Your task to perform on an android device: Go to accessibility settings Image 0: 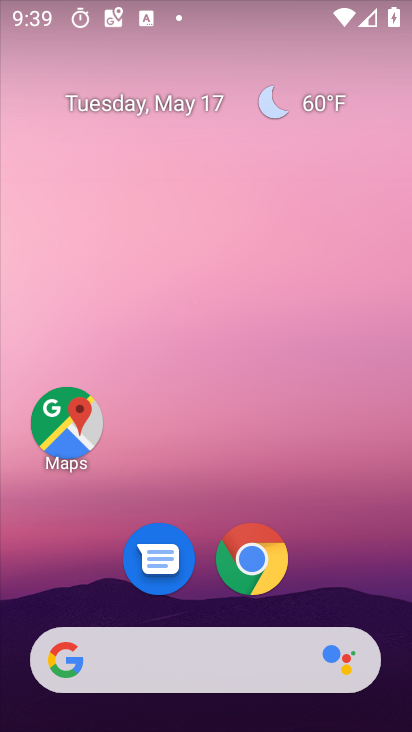
Step 0: drag from (199, 651) to (270, 121)
Your task to perform on an android device: Go to accessibility settings Image 1: 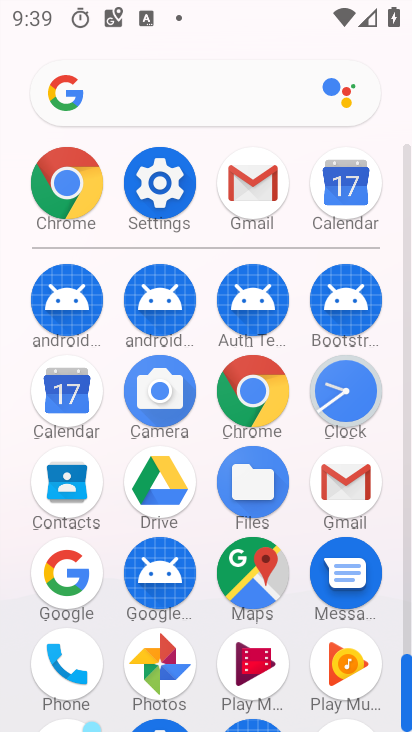
Step 1: click (149, 200)
Your task to perform on an android device: Go to accessibility settings Image 2: 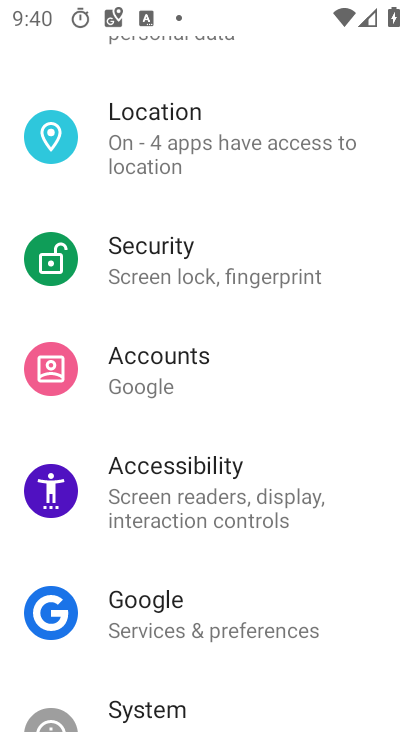
Step 2: drag from (219, 571) to (273, 191)
Your task to perform on an android device: Go to accessibility settings Image 3: 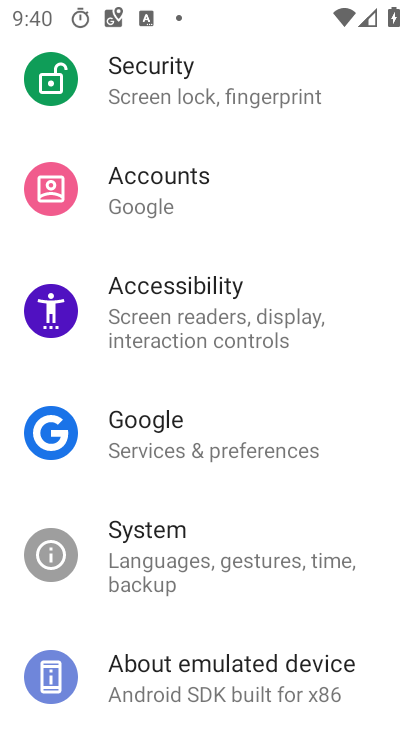
Step 3: drag from (197, 564) to (252, 233)
Your task to perform on an android device: Go to accessibility settings Image 4: 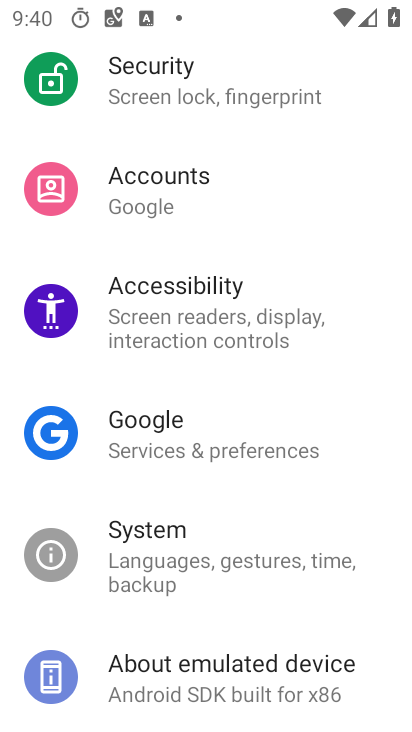
Step 4: click (240, 325)
Your task to perform on an android device: Go to accessibility settings Image 5: 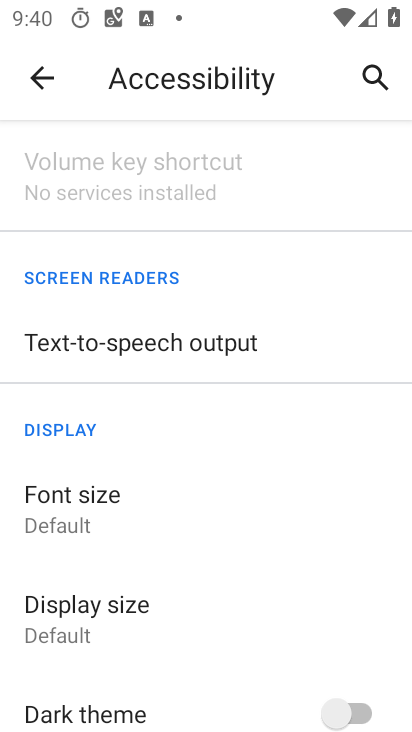
Step 5: task complete